Your task to perform on an android device: Add "logitech g910" to the cart on costco Image 0: 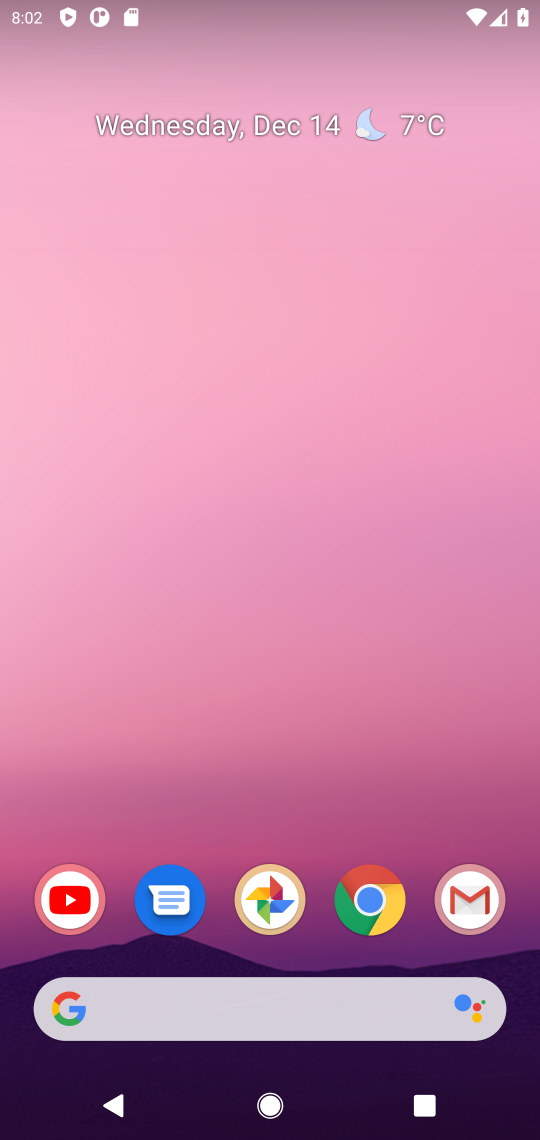
Step 0: click (266, 1005)
Your task to perform on an android device: Add "logitech g910" to the cart on costco Image 1: 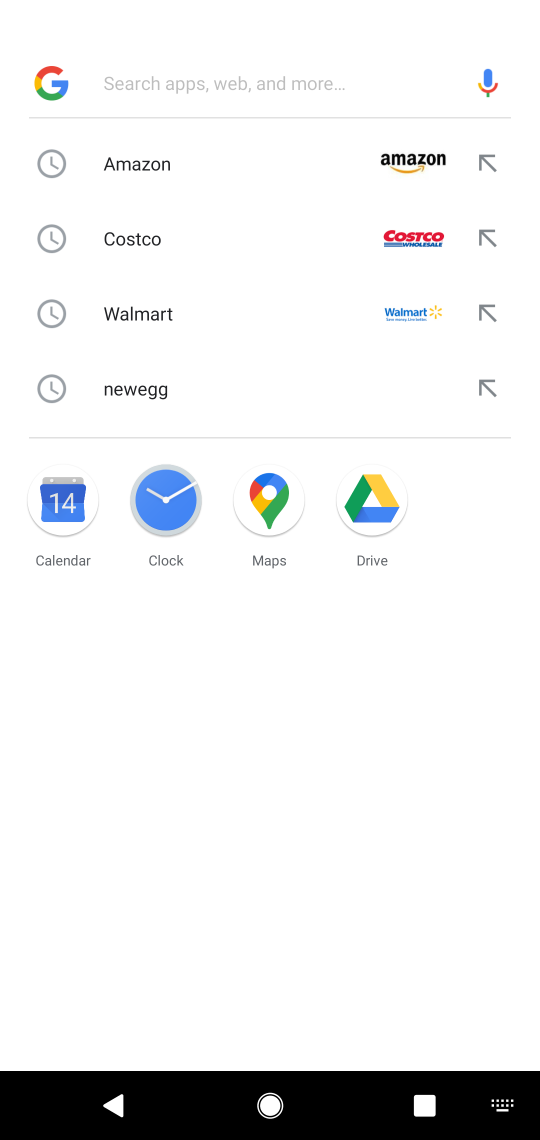
Step 1: click (259, 259)
Your task to perform on an android device: Add "logitech g910" to the cart on costco Image 2: 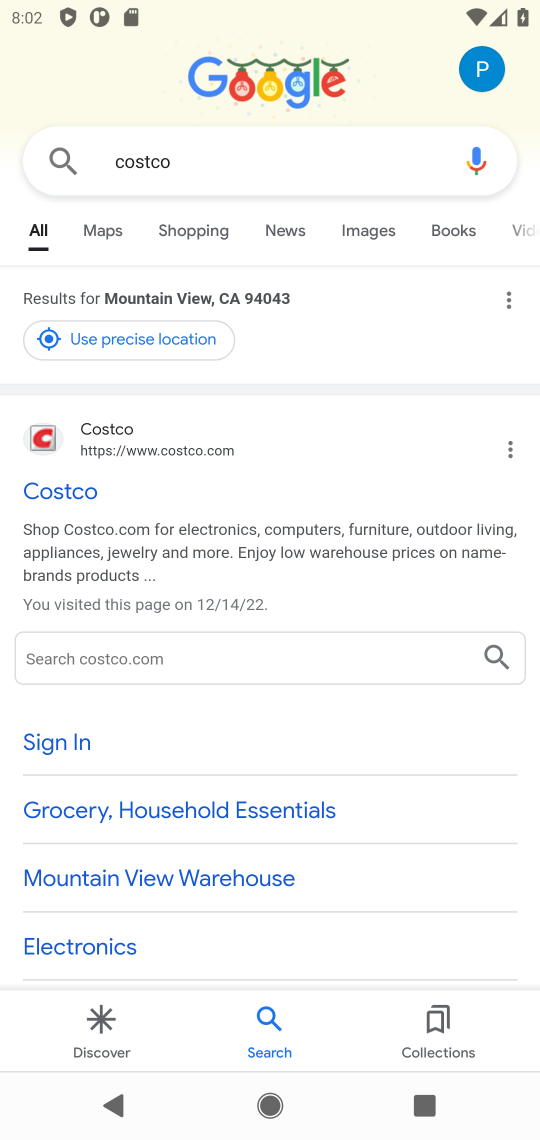
Step 2: click (71, 496)
Your task to perform on an android device: Add "logitech g910" to the cart on costco Image 3: 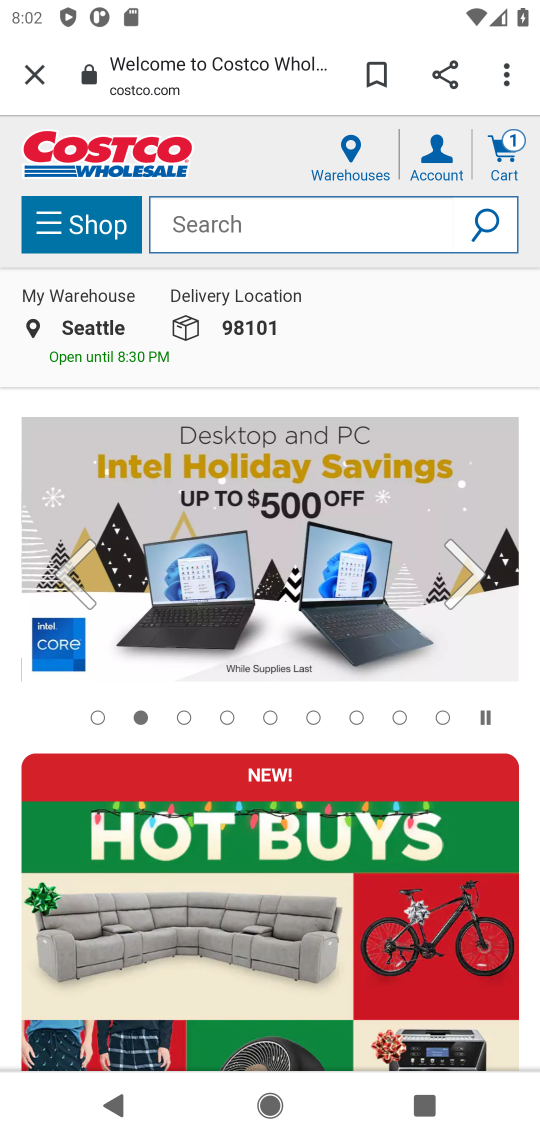
Step 3: click (250, 204)
Your task to perform on an android device: Add "logitech g910" to the cart on costco Image 4: 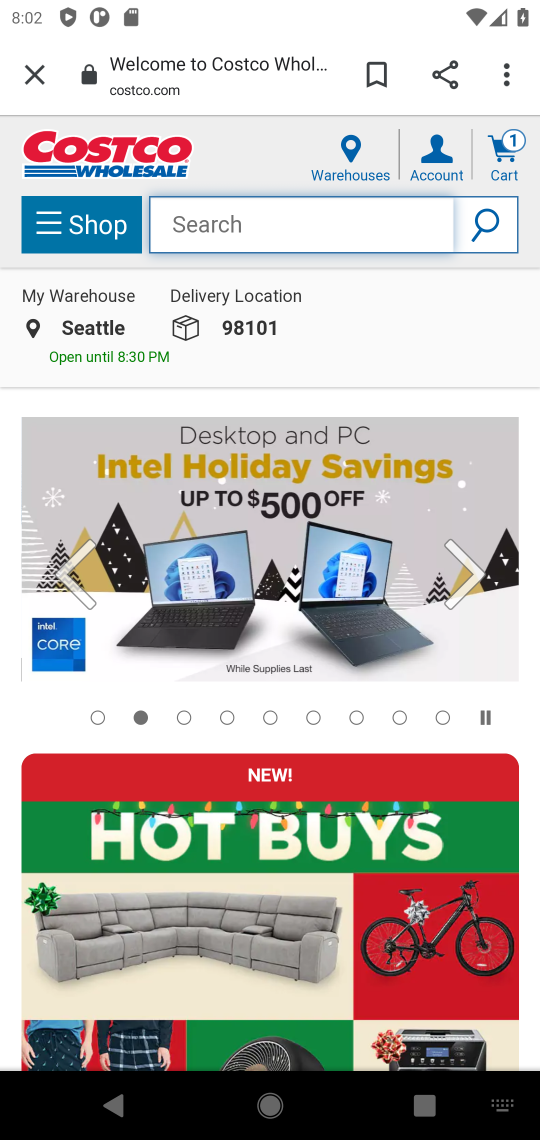
Step 4: type "logitech g910""
Your task to perform on an android device: Add "logitech g910" to the cart on costco Image 5: 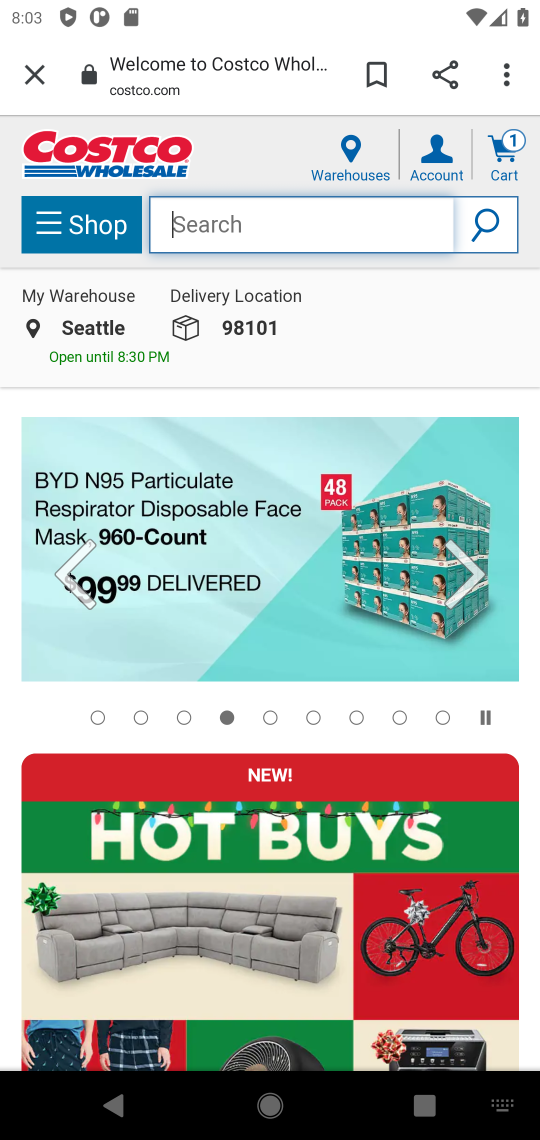
Step 5: type "logitech g910""
Your task to perform on an android device: Add "logitech g910" to the cart on costco Image 6: 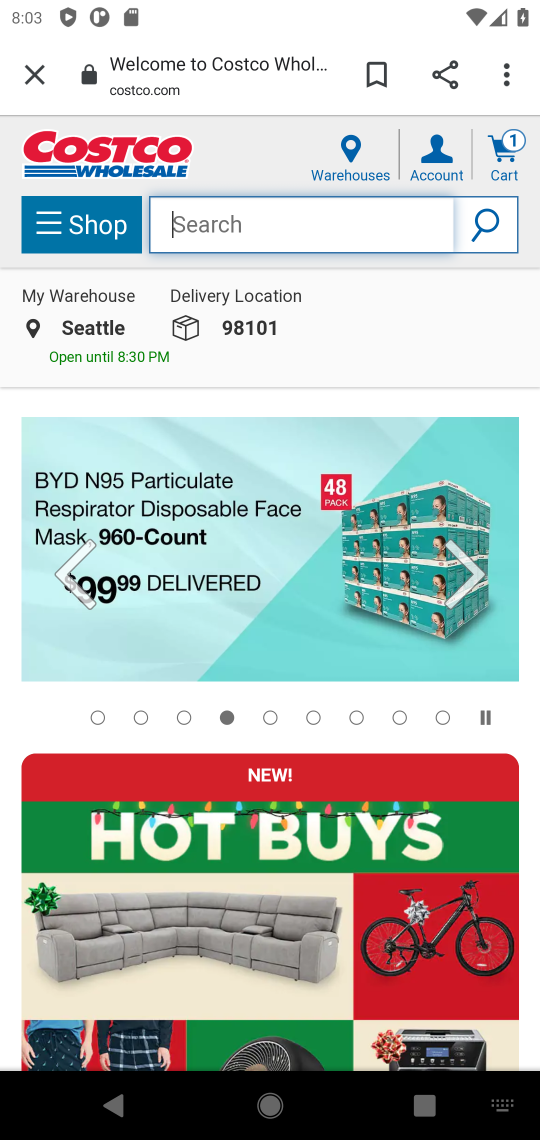
Step 6: type ""
Your task to perform on an android device: Add "logitech g910" to the cart on costco Image 7: 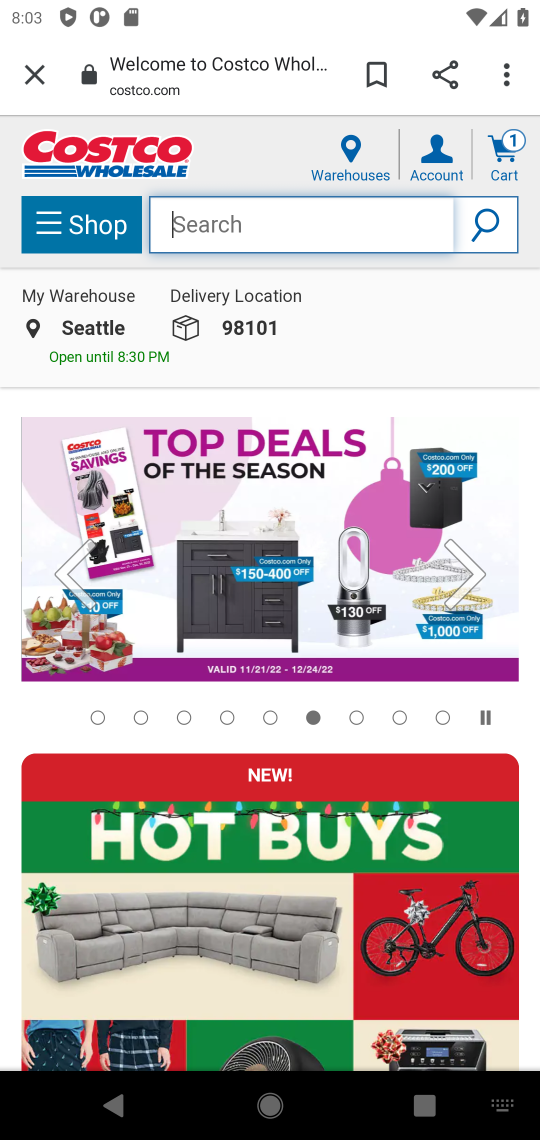
Step 7: task complete